Your task to perform on an android device: Go to Reddit.com Image 0: 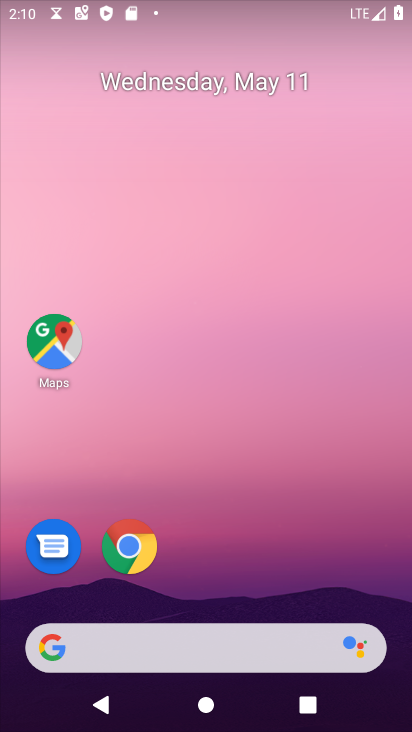
Step 0: drag from (318, 637) to (325, 74)
Your task to perform on an android device: Go to Reddit.com Image 1: 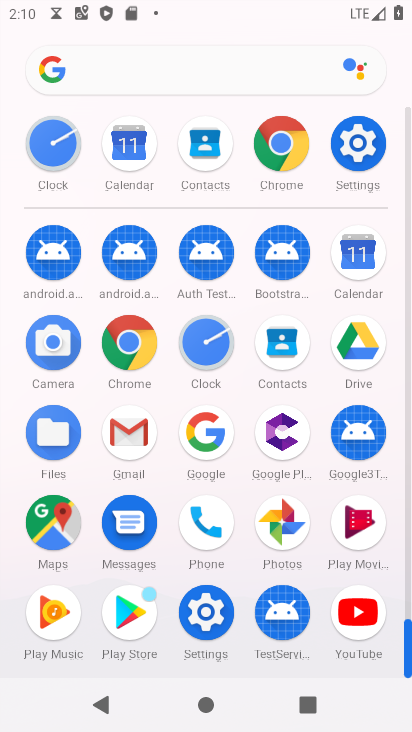
Step 1: click (129, 341)
Your task to perform on an android device: Go to Reddit.com Image 2: 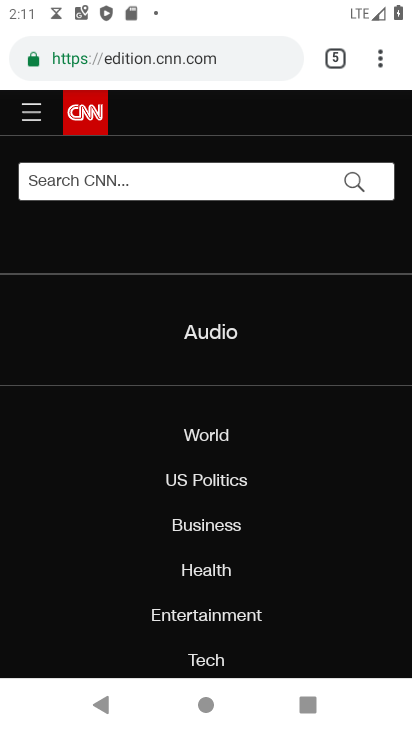
Step 2: click (189, 55)
Your task to perform on an android device: Go to Reddit.com Image 3: 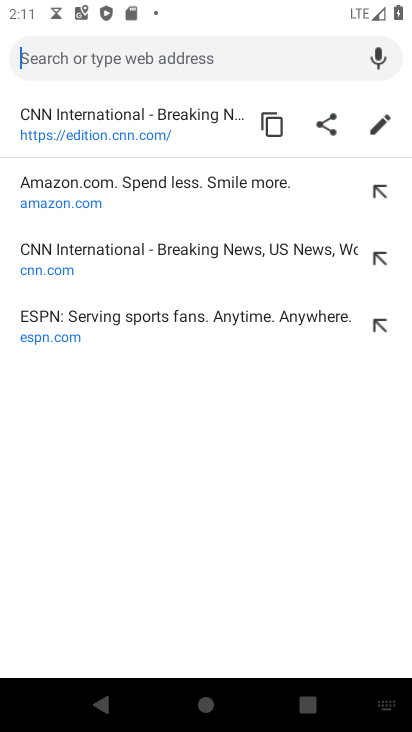
Step 3: type "reddit.com"
Your task to perform on an android device: Go to Reddit.com Image 4: 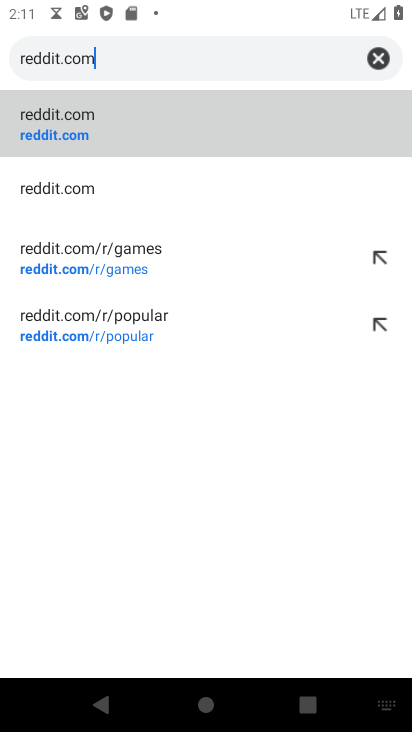
Step 4: click (54, 128)
Your task to perform on an android device: Go to Reddit.com Image 5: 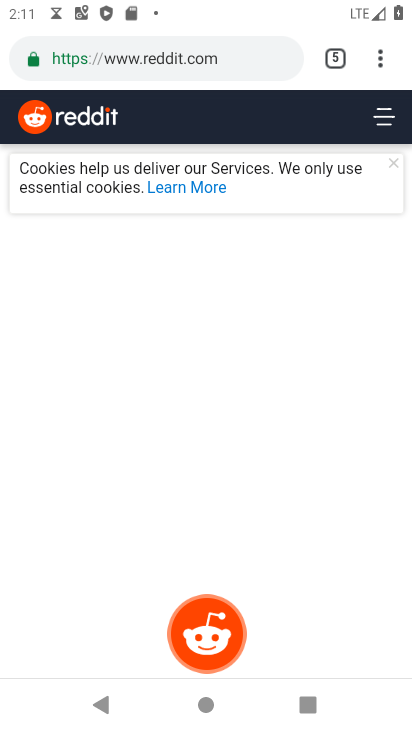
Step 5: task complete